Your task to perform on an android device: Check the weather Image 0: 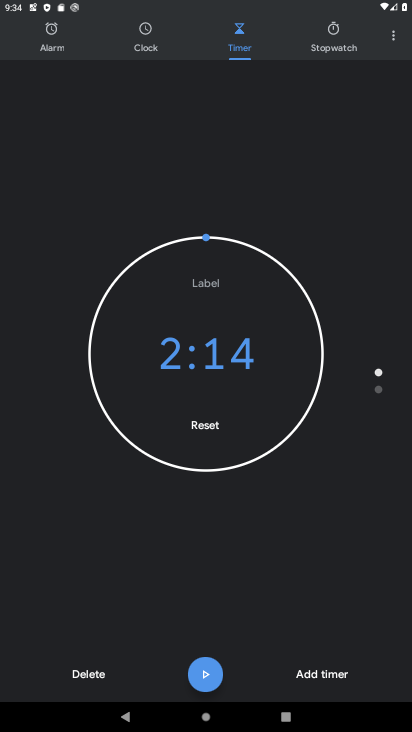
Step 0: press home button
Your task to perform on an android device: Check the weather Image 1: 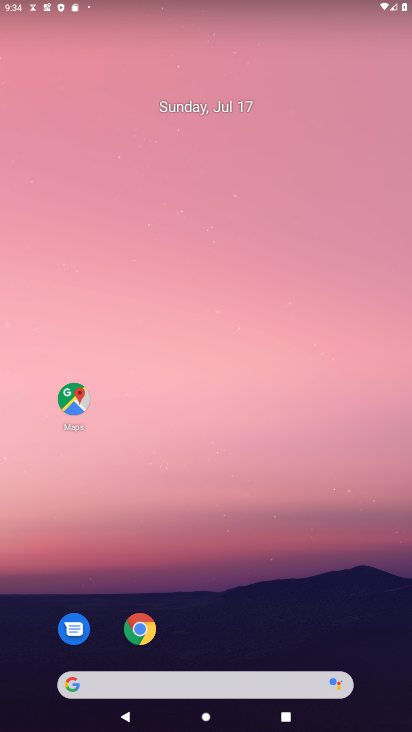
Step 1: drag from (233, 702) to (235, 191)
Your task to perform on an android device: Check the weather Image 2: 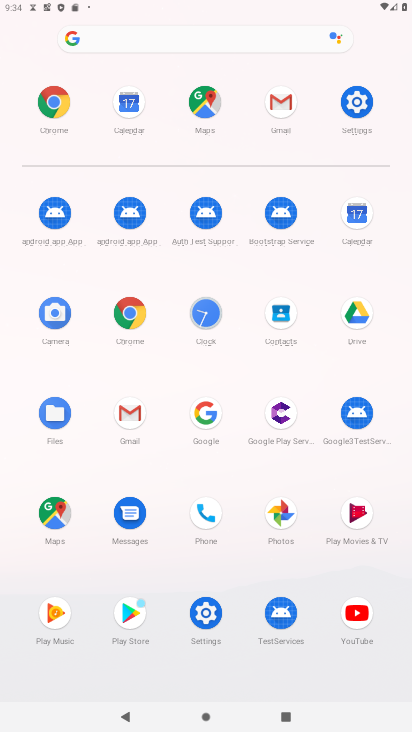
Step 2: click (212, 407)
Your task to perform on an android device: Check the weather Image 3: 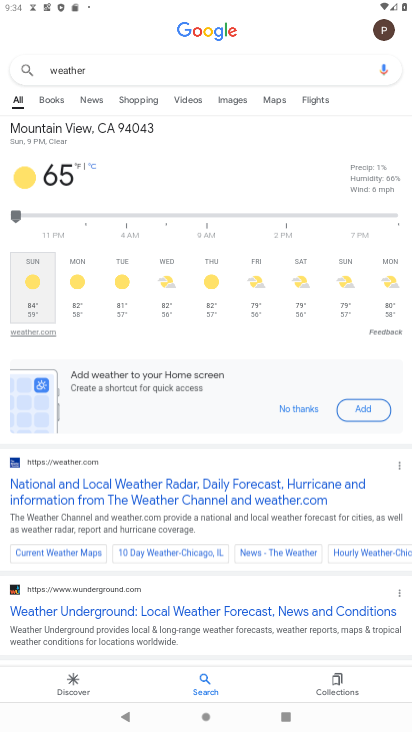
Step 3: task complete